Your task to perform on an android device: Is it going to rain today? Image 0: 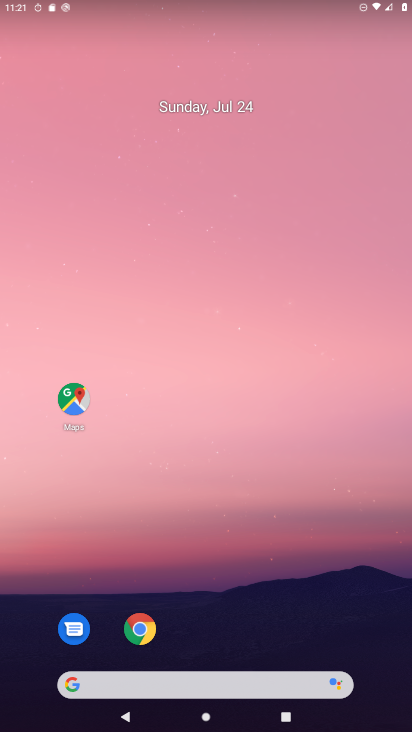
Step 0: drag from (196, 673) to (204, 299)
Your task to perform on an android device: Is it going to rain today? Image 1: 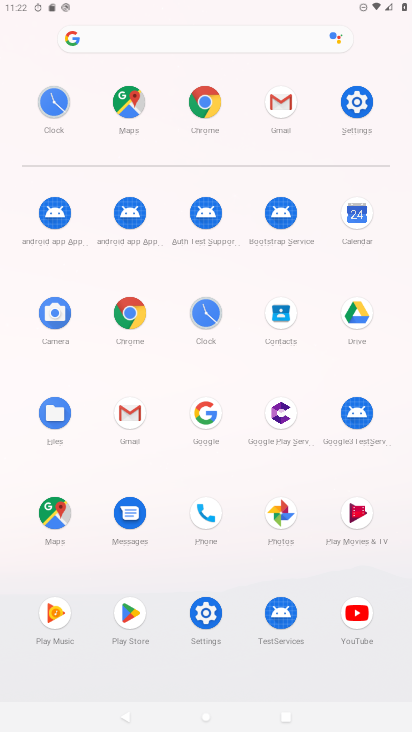
Step 1: click (195, 428)
Your task to perform on an android device: Is it going to rain today? Image 2: 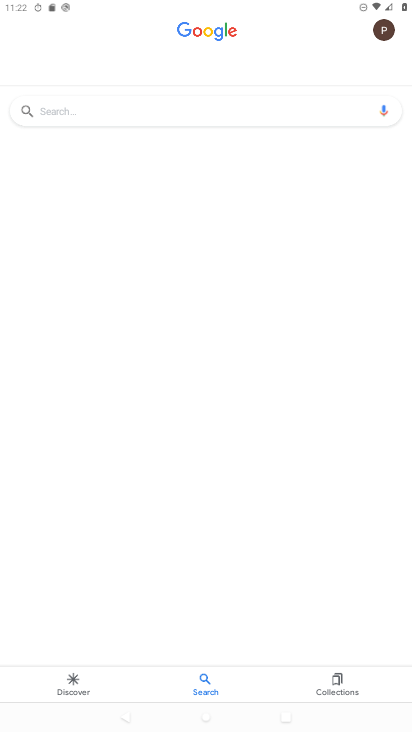
Step 2: click (110, 106)
Your task to perform on an android device: Is it going to rain today? Image 3: 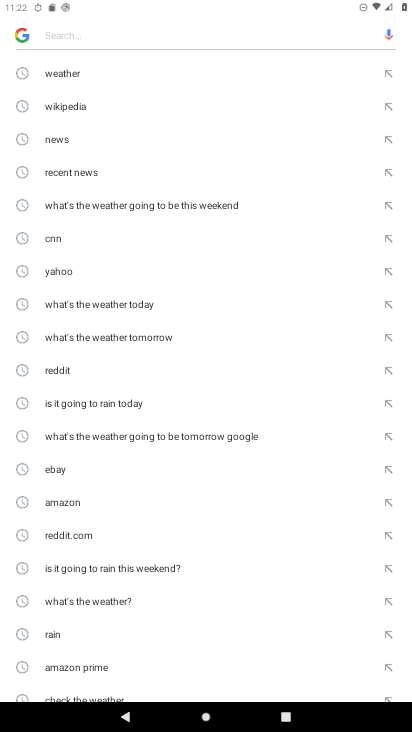
Step 3: click (83, 78)
Your task to perform on an android device: Is it going to rain today? Image 4: 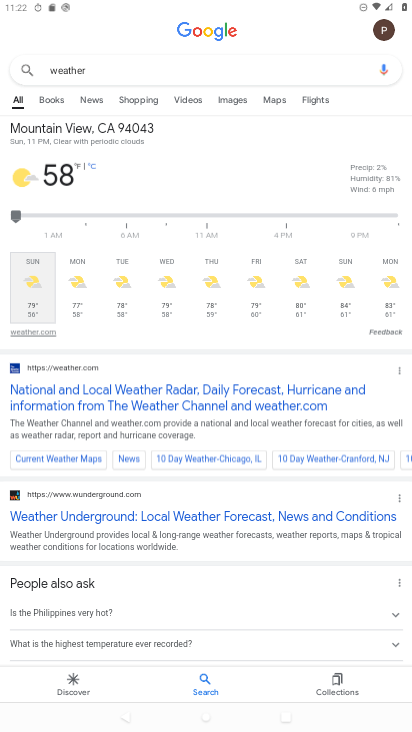
Step 4: task complete